Your task to perform on an android device: Open internet settings Image 0: 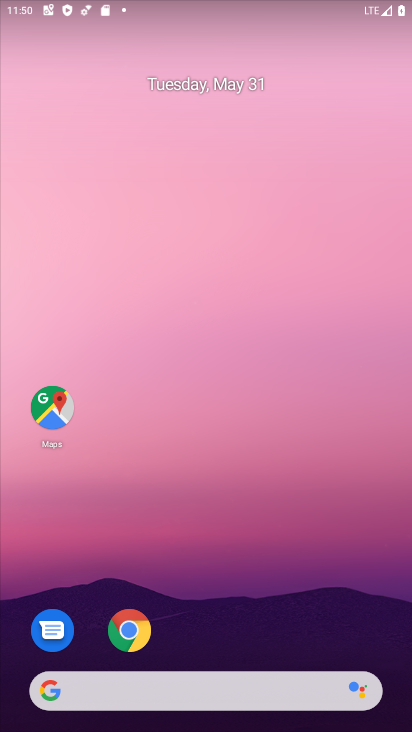
Step 0: drag from (276, 611) to (277, 89)
Your task to perform on an android device: Open internet settings Image 1: 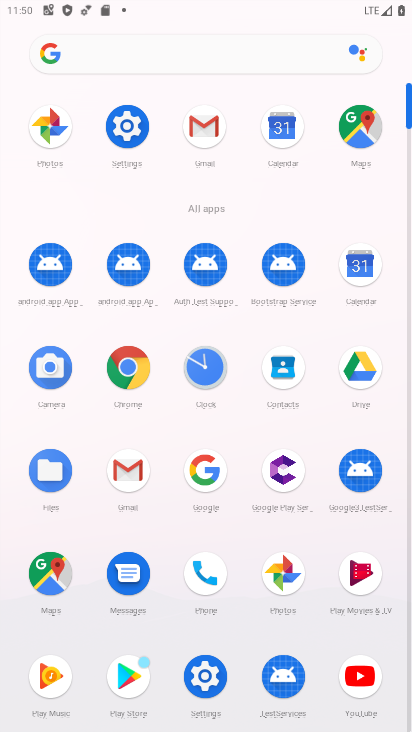
Step 1: click (126, 121)
Your task to perform on an android device: Open internet settings Image 2: 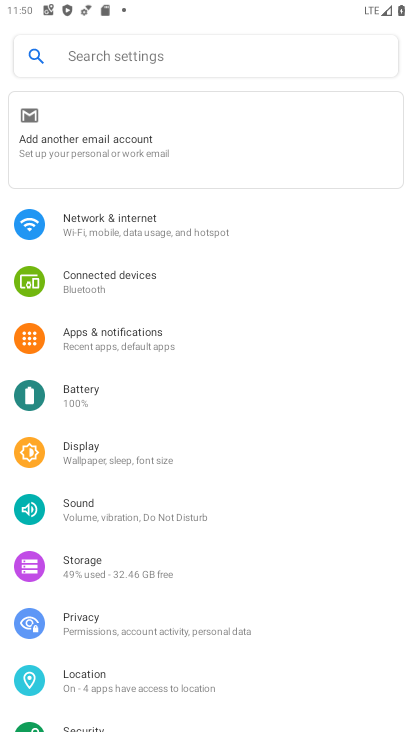
Step 2: click (101, 217)
Your task to perform on an android device: Open internet settings Image 3: 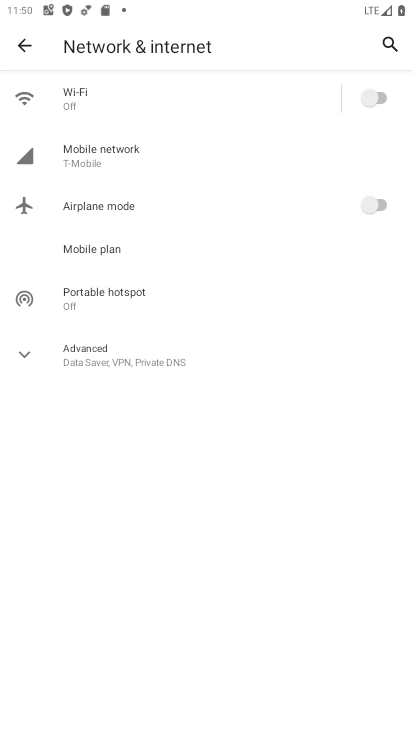
Step 3: click (107, 145)
Your task to perform on an android device: Open internet settings Image 4: 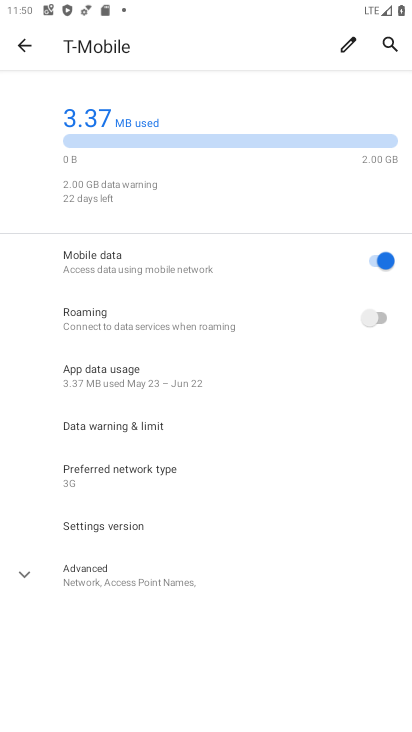
Step 4: task complete